Your task to perform on an android device: turn notification dots on Image 0: 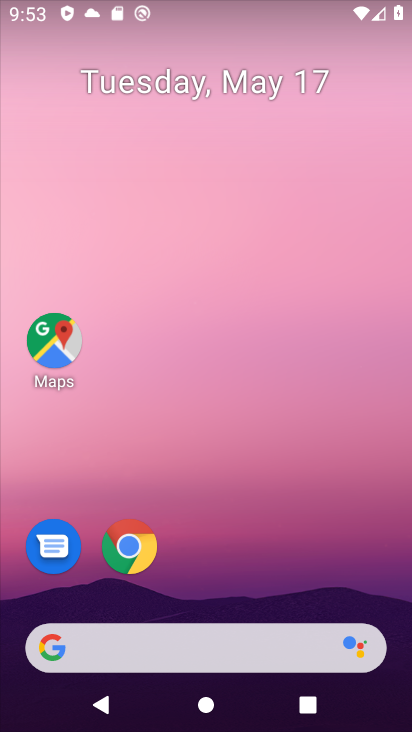
Step 0: drag from (210, 578) to (216, 239)
Your task to perform on an android device: turn notification dots on Image 1: 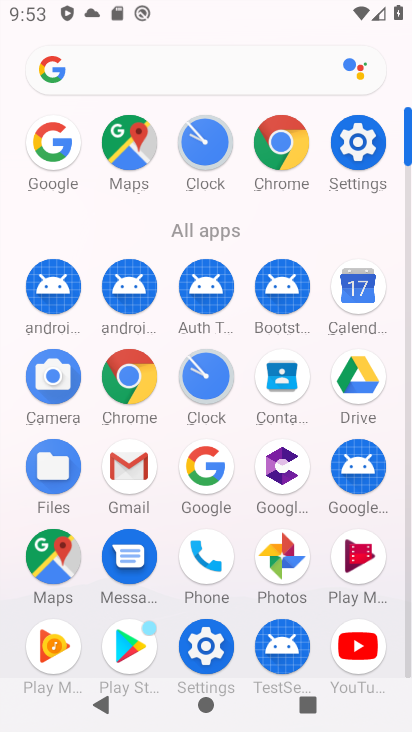
Step 1: click (364, 140)
Your task to perform on an android device: turn notification dots on Image 2: 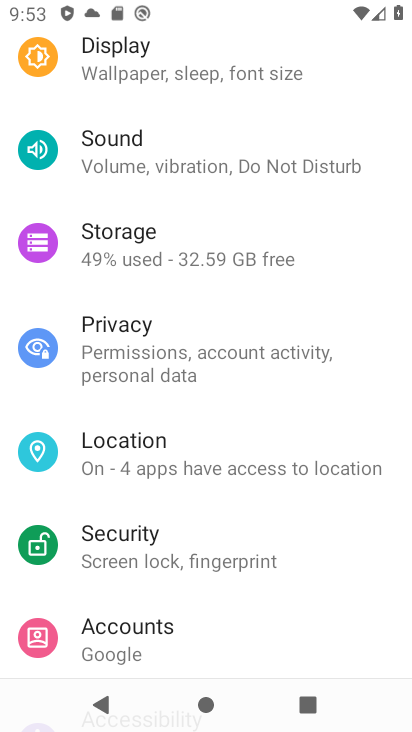
Step 2: drag from (196, 155) to (228, 639)
Your task to perform on an android device: turn notification dots on Image 3: 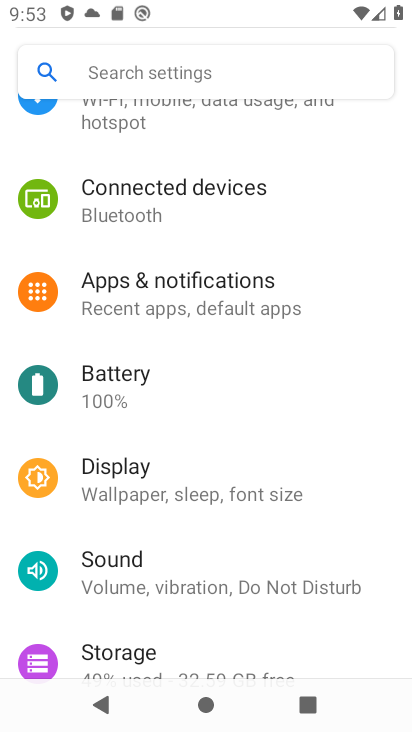
Step 3: click (152, 64)
Your task to perform on an android device: turn notification dots on Image 4: 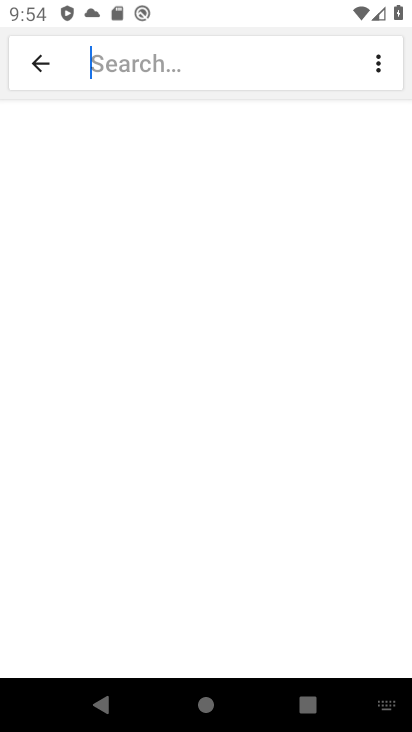
Step 4: click (158, 61)
Your task to perform on an android device: turn notification dots on Image 5: 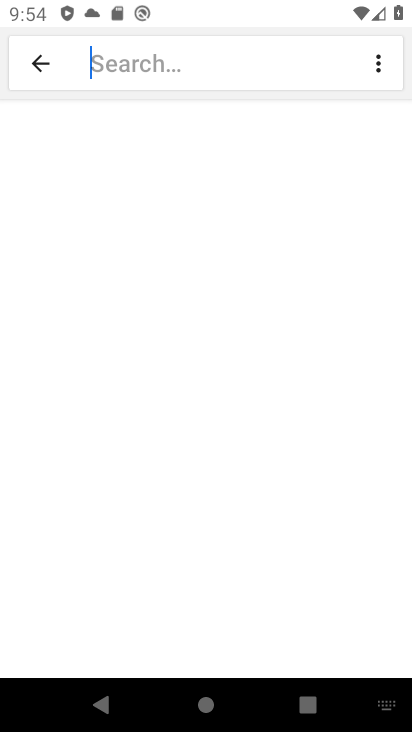
Step 5: type "notification dots on"
Your task to perform on an android device: turn notification dots on Image 6: 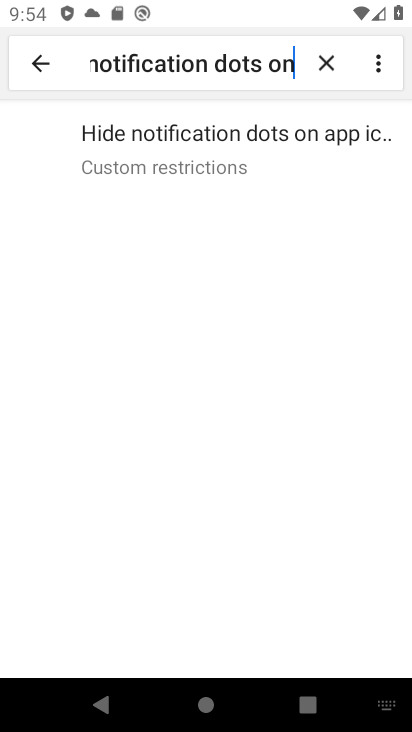
Step 6: click (288, 59)
Your task to perform on an android device: turn notification dots on Image 7: 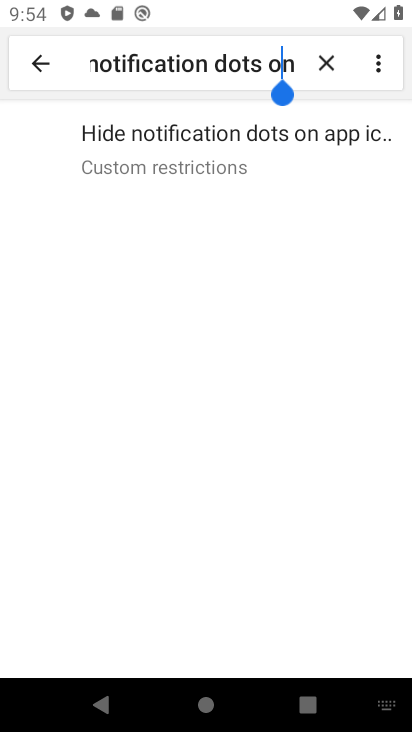
Step 7: click (321, 67)
Your task to perform on an android device: turn notification dots on Image 8: 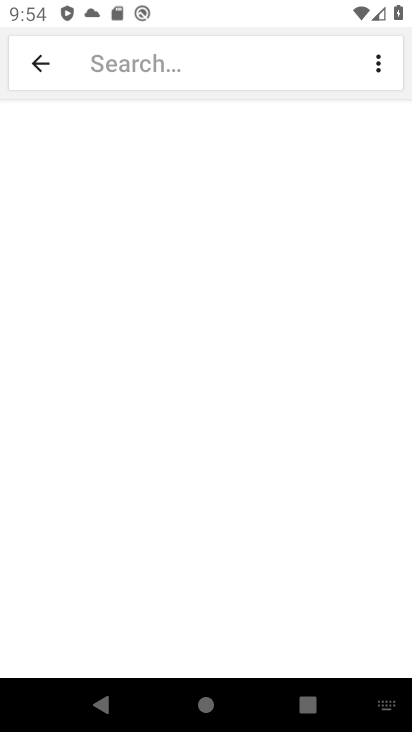
Step 8: click (246, 70)
Your task to perform on an android device: turn notification dots on Image 9: 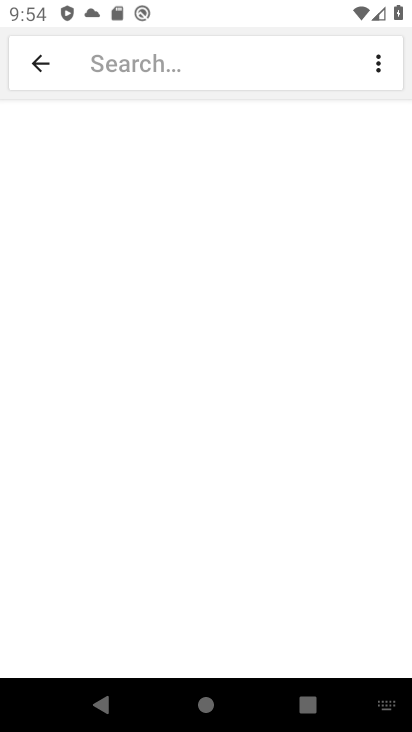
Step 9: type "notification dots"
Your task to perform on an android device: turn notification dots on Image 10: 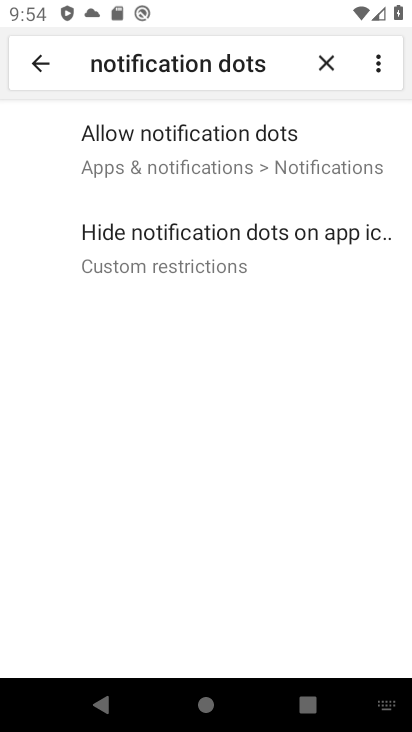
Step 10: click (149, 153)
Your task to perform on an android device: turn notification dots on Image 11: 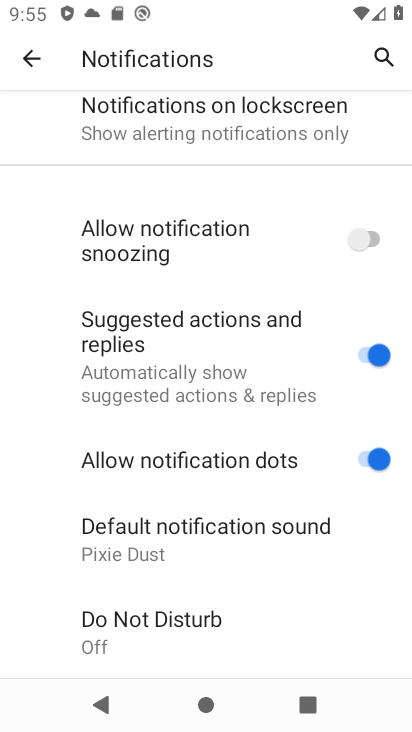
Step 11: task complete